Your task to perform on an android device: Is it going to rain today? Image 0: 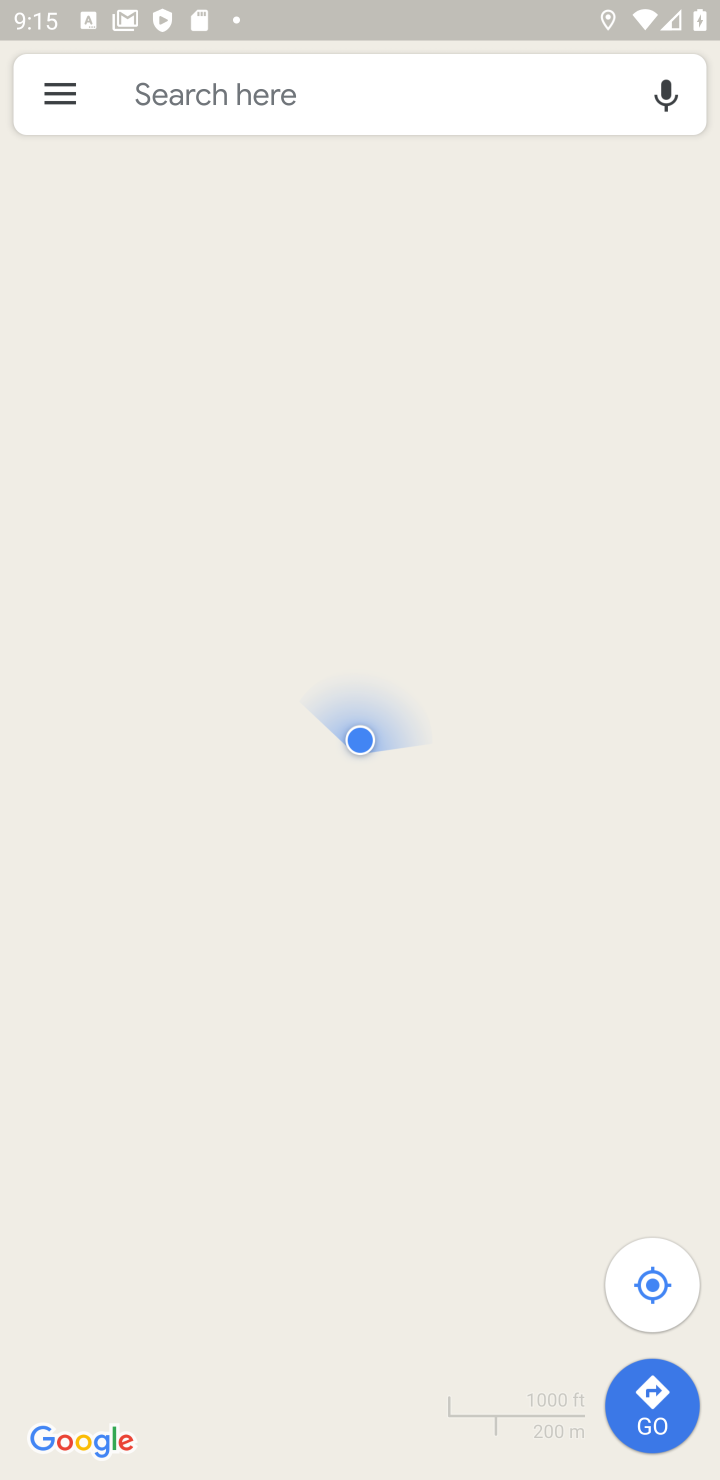
Step 0: press home button
Your task to perform on an android device: Is it going to rain today? Image 1: 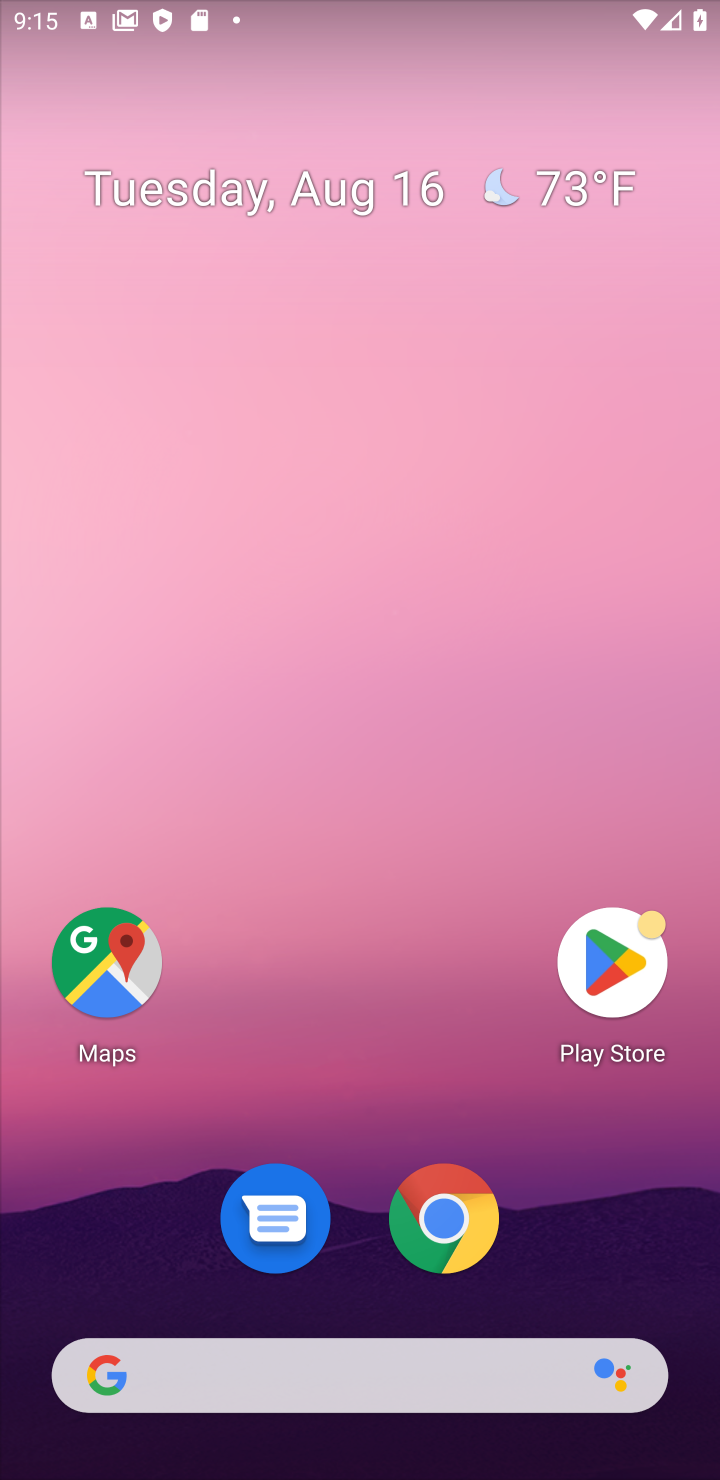
Step 1: click (588, 184)
Your task to perform on an android device: Is it going to rain today? Image 2: 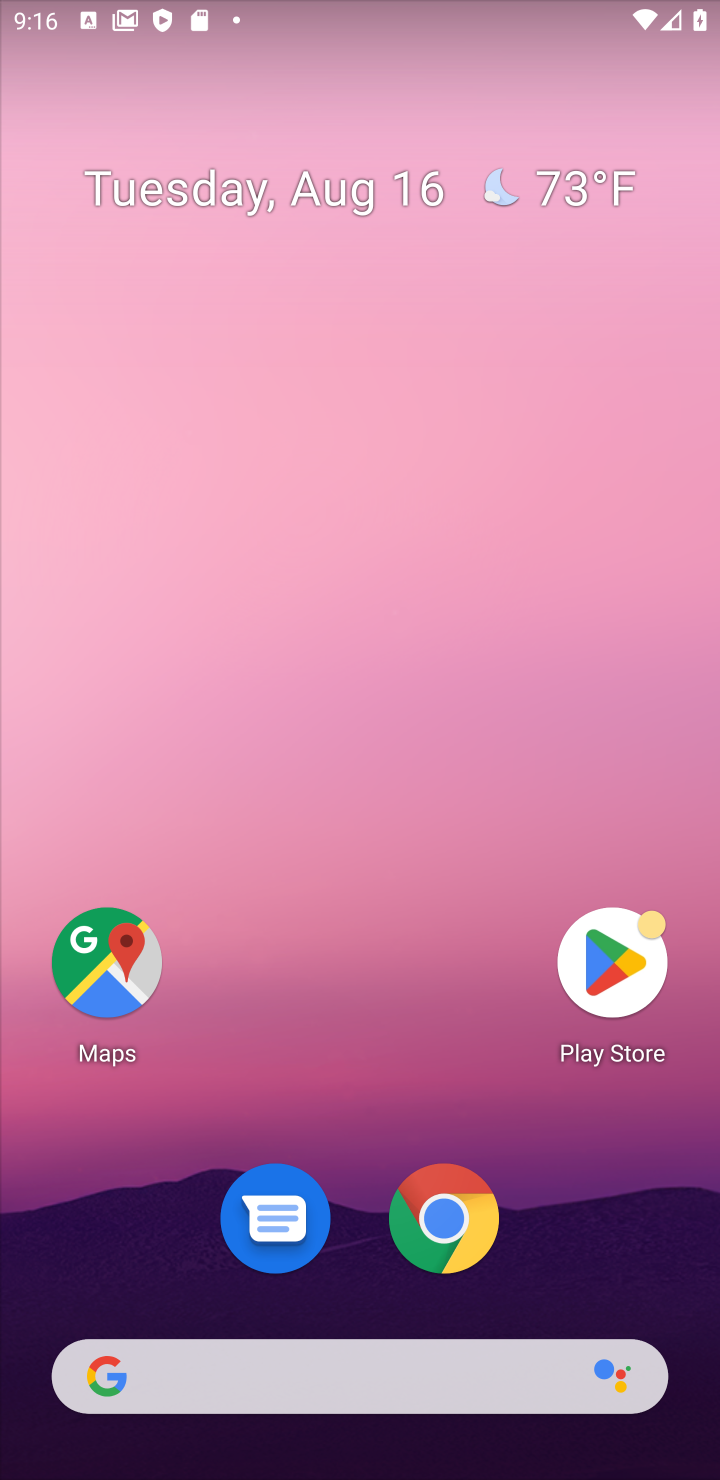
Step 2: click (565, 205)
Your task to perform on an android device: Is it going to rain today? Image 3: 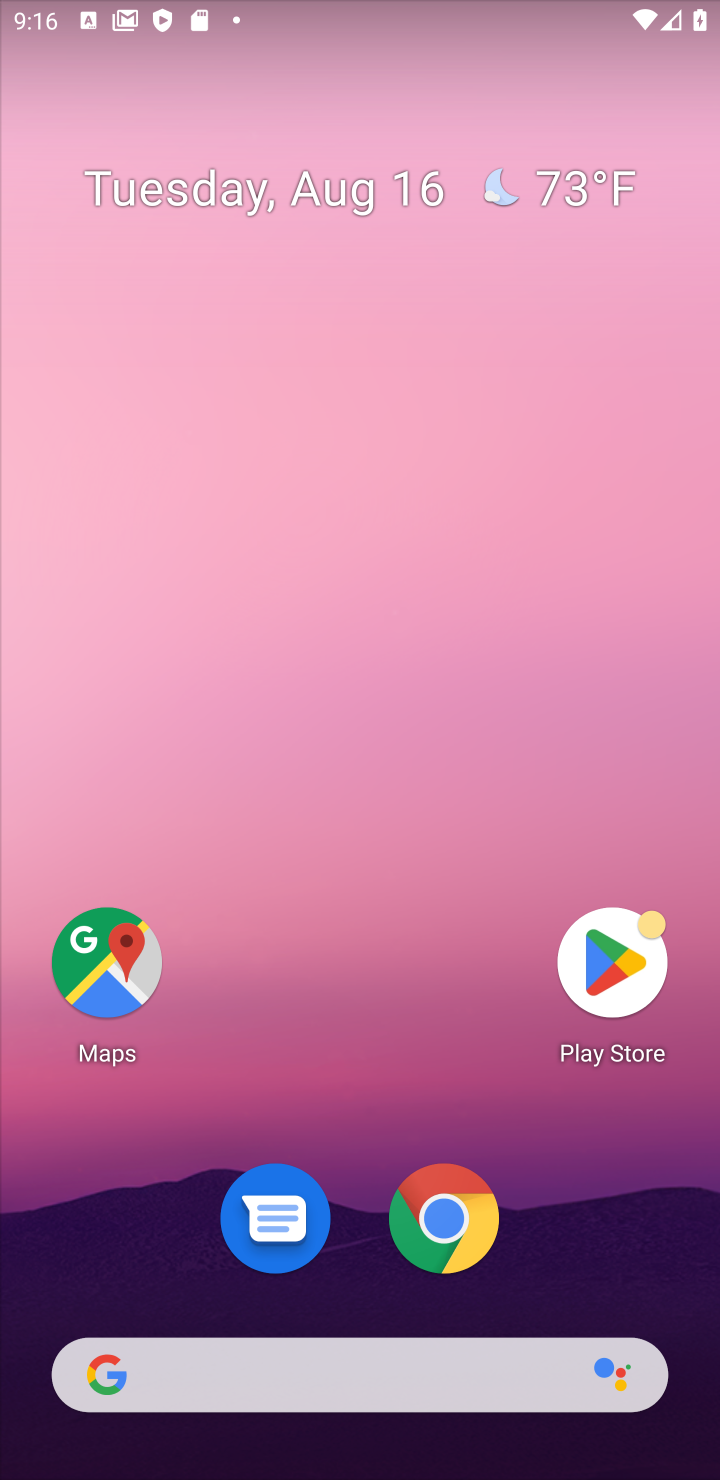
Step 3: click (614, 194)
Your task to perform on an android device: Is it going to rain today? Image 4: 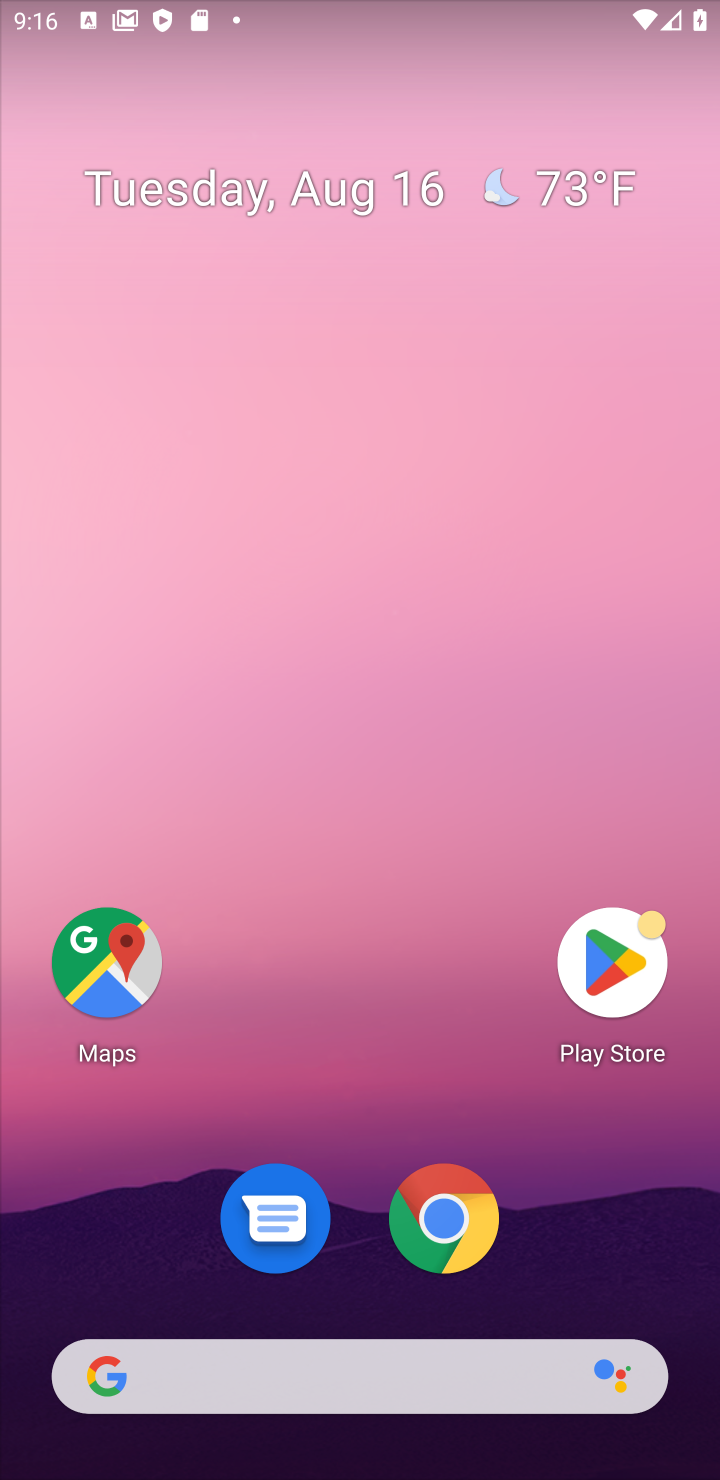
Step 4: click (614, 194)
Your task to perform on an android device: Is it going to rain today? Image 5: 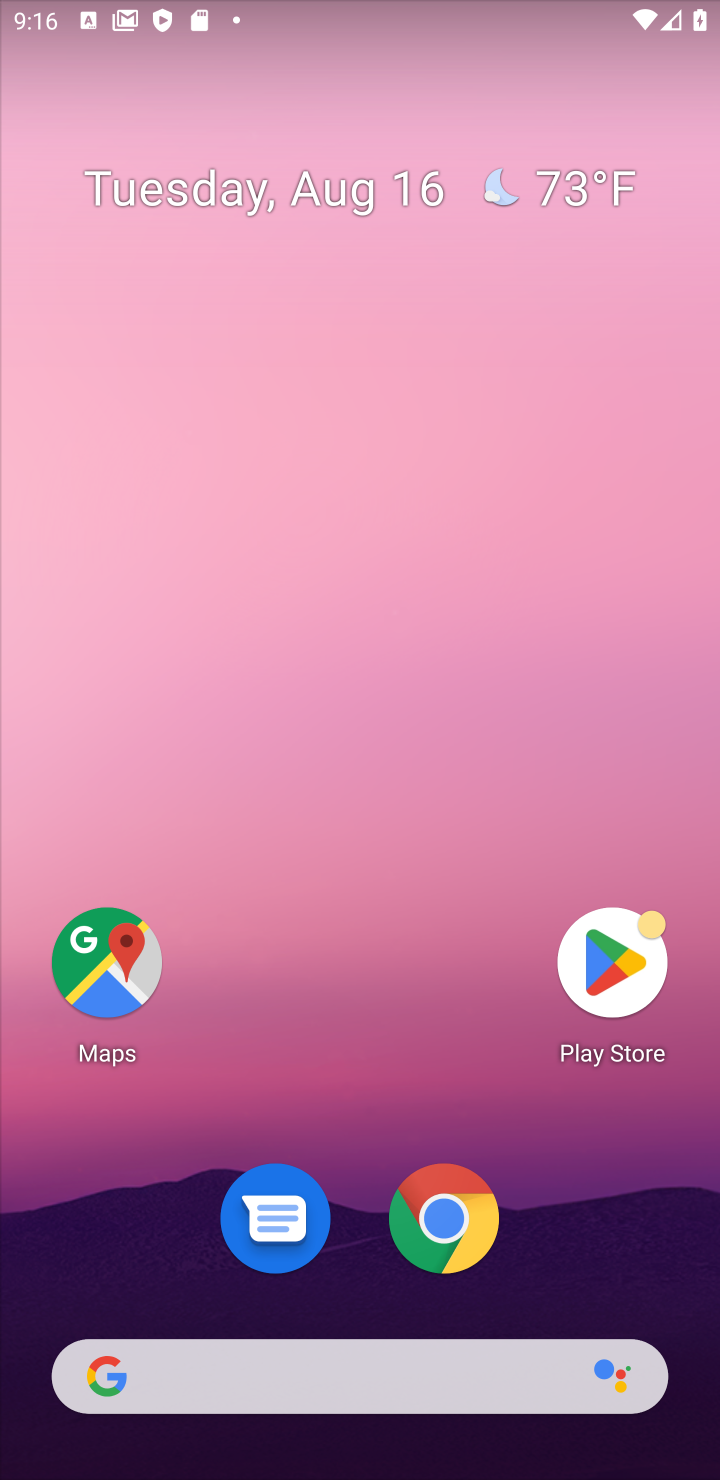
Step 5: click (502, 197)
Your task to perform on an android device: Is it going to rain today? Image 6: 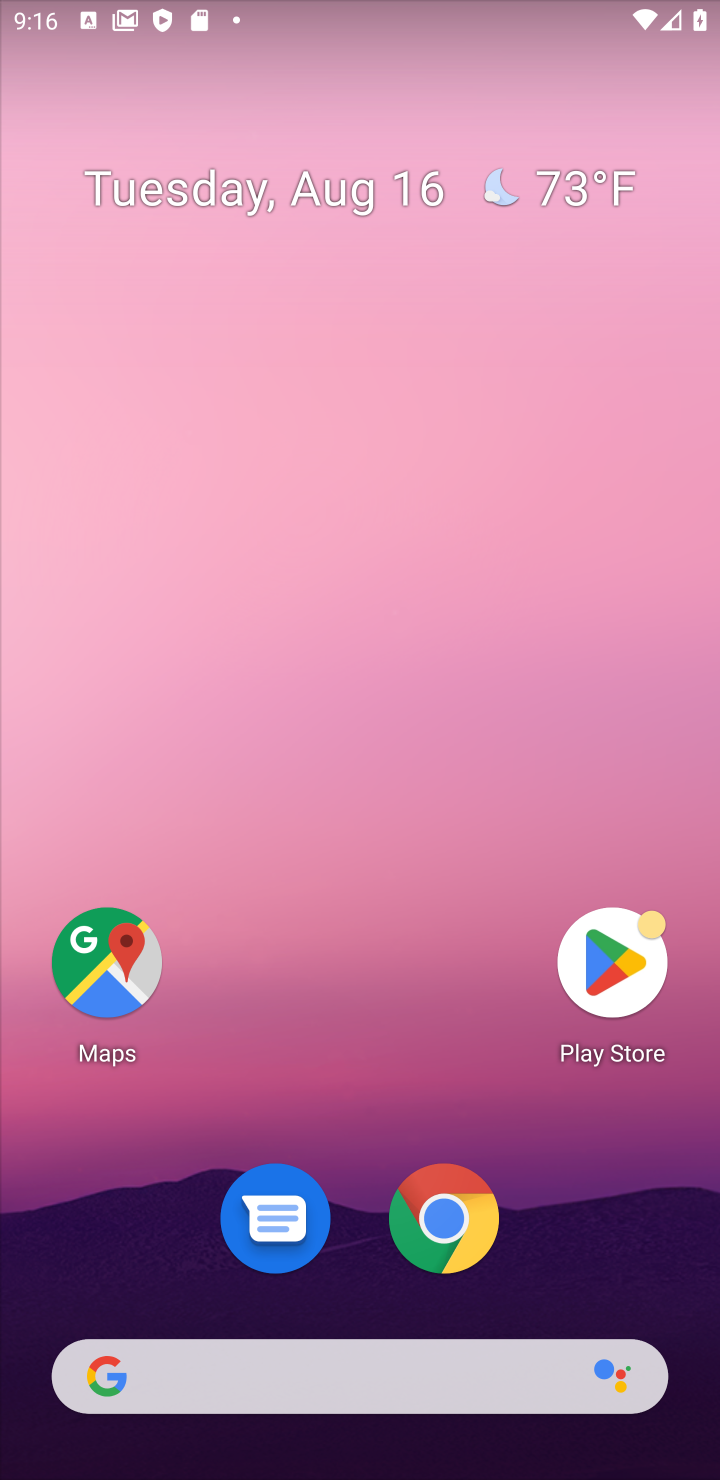
Step 6: click (346, 1359)
Your task to perform on an android device: Is it going to rain today? Image 7: 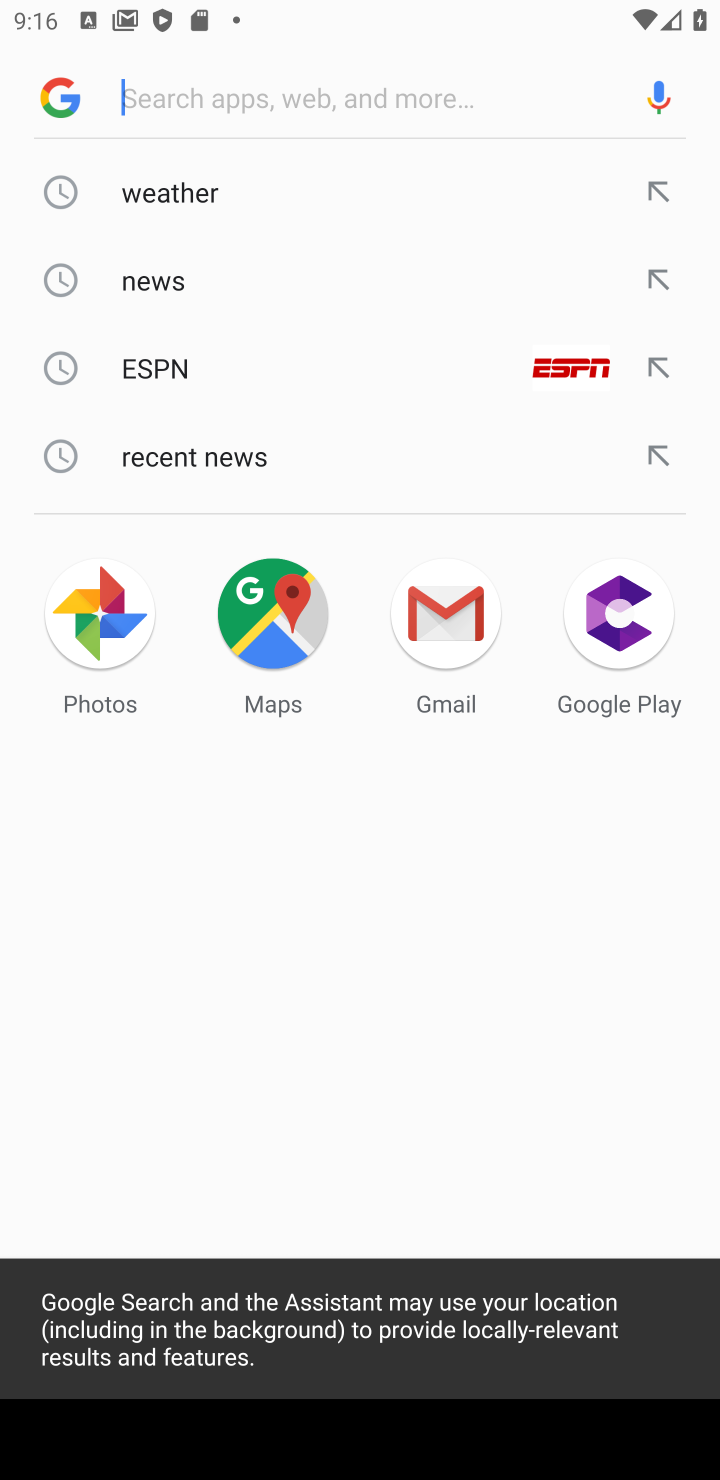
Step 7: click (226, 190)
Your task to perform on an android device: Is it going to rain today? Image 8: 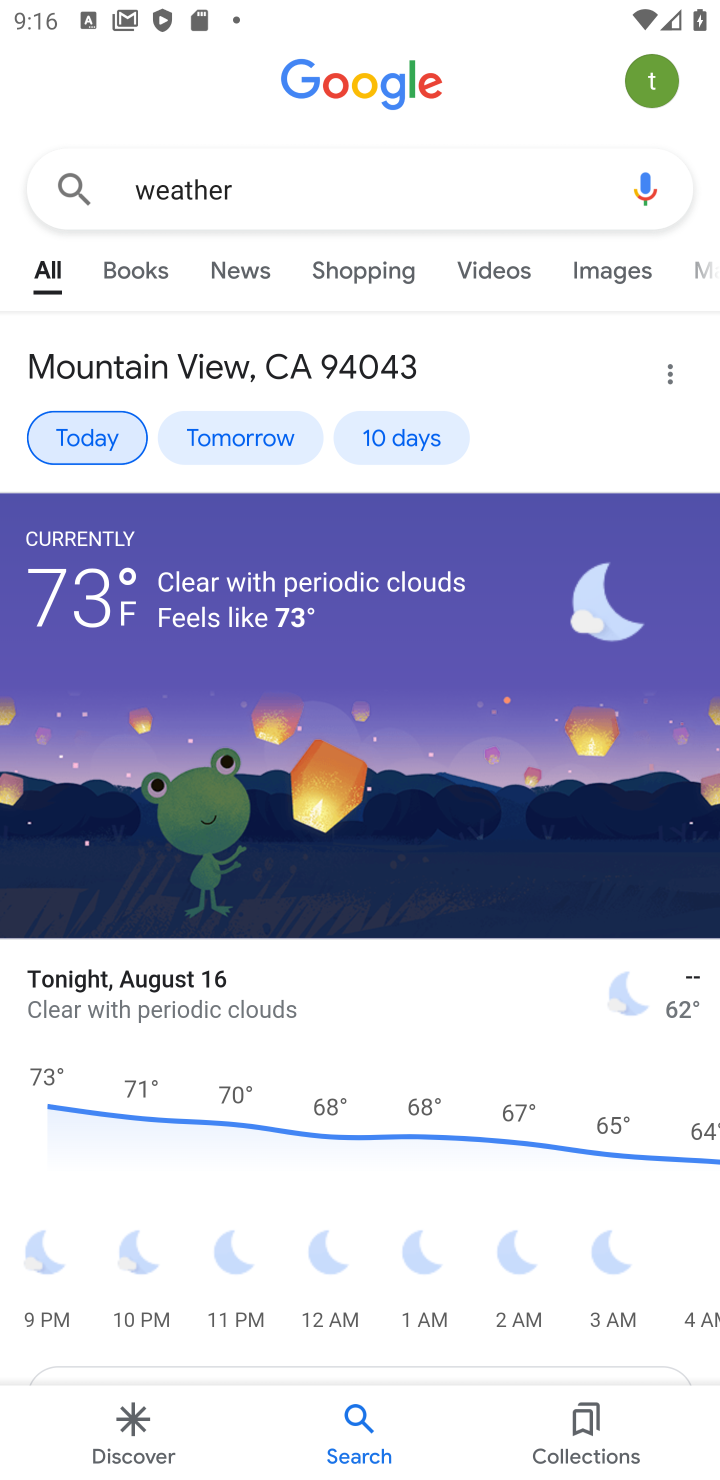
Step 8: task complete